Your task to perform on an android device: Open notification settings Image 0: 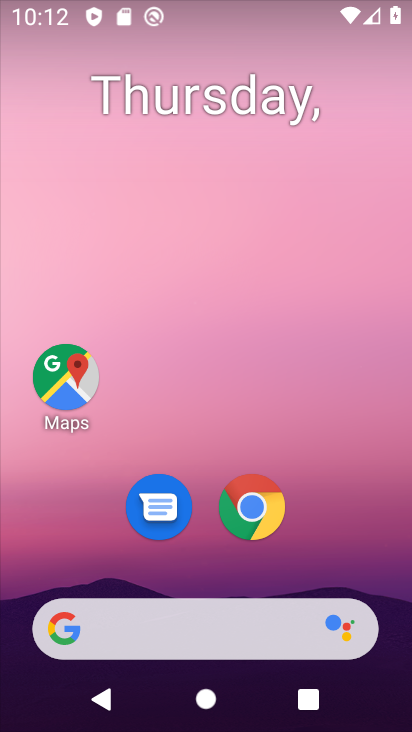
Step 0: drag from (353, 518) to (287, 31)
Your task to perform on an android device: Open notification settings Image 1: 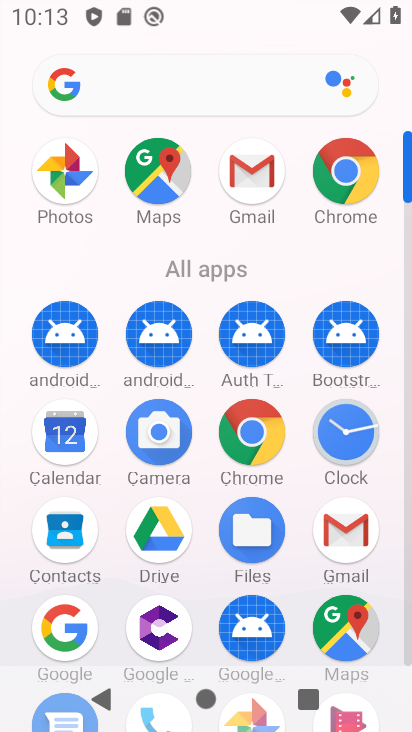
Step 1: drag from (5, 593) to (5, 284)
Your task to perform on an android device: Open notification settings Image 2: 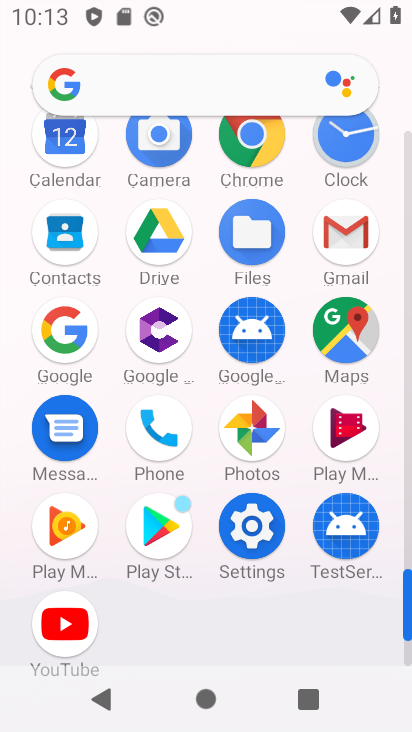
Step 2: click (254, 527)
Your task to perform on an android device: Open notification settings Image 3: 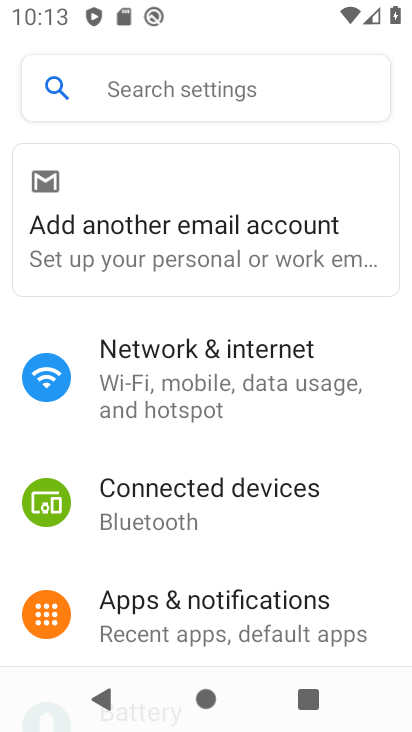
Step 3: click (190, 588)
Your task to perform on an android device: Open notification settings Image 4: 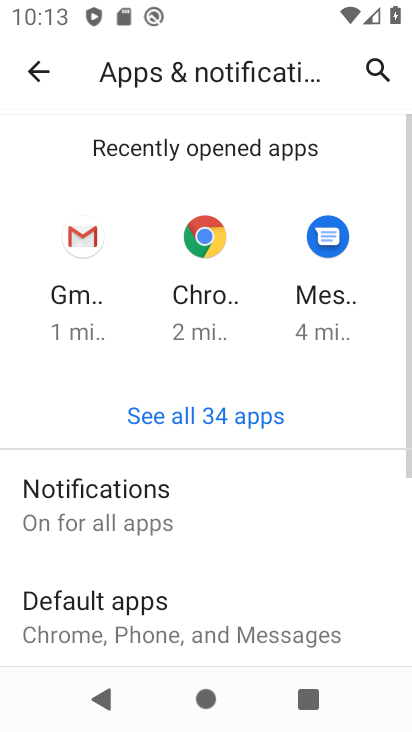
Step 4: click (185, 517)
Your task to perform on an android device: Open notification settings Image 5: 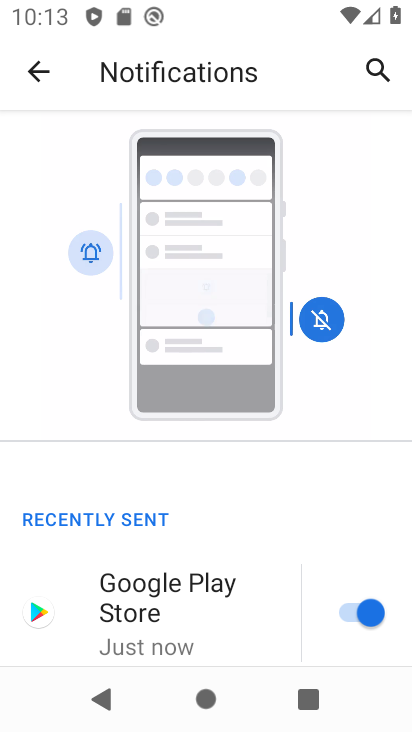
Step 5: drag from (207, 565) to (234, 162)
Your task to perform on an android device: Open notification settings Image 6: 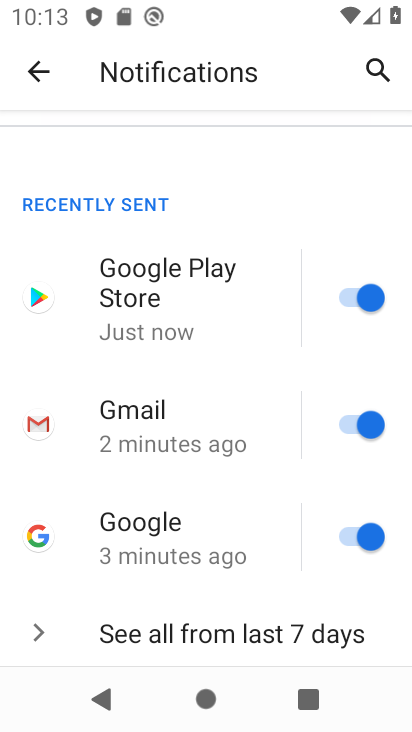
Step 6: drag from (194, 498) to (220, 155)
Your task to perform on an android device: Open notification settings Image 7: 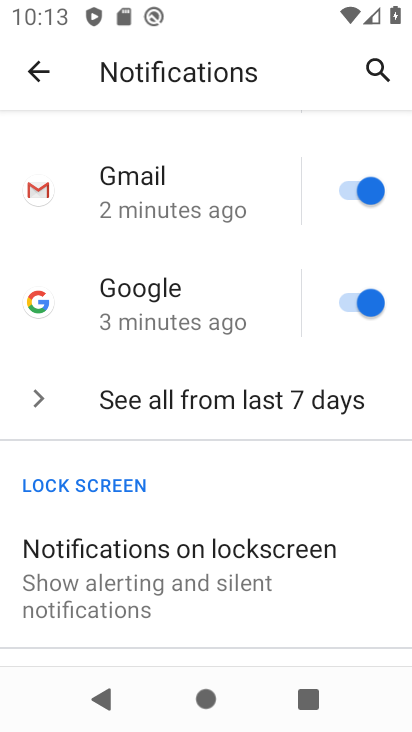
Step 7: drag from (112, 579) to (193, 136)
Your task to perform on an android device: Open notification settings Image 8: 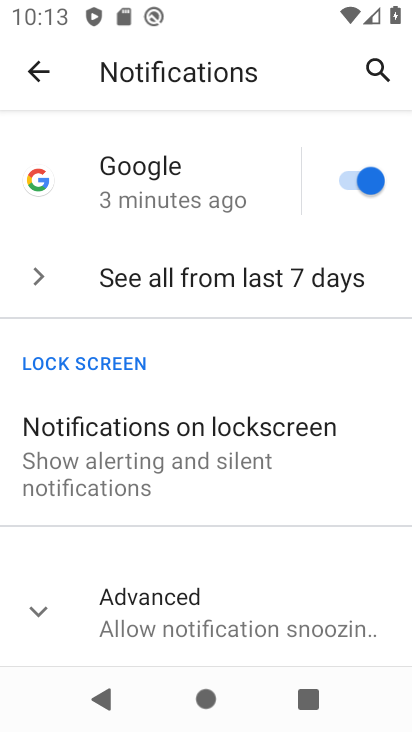
Step 8: click (17, 603)
Your task to perform on an android device: Open notification settings Image 9: 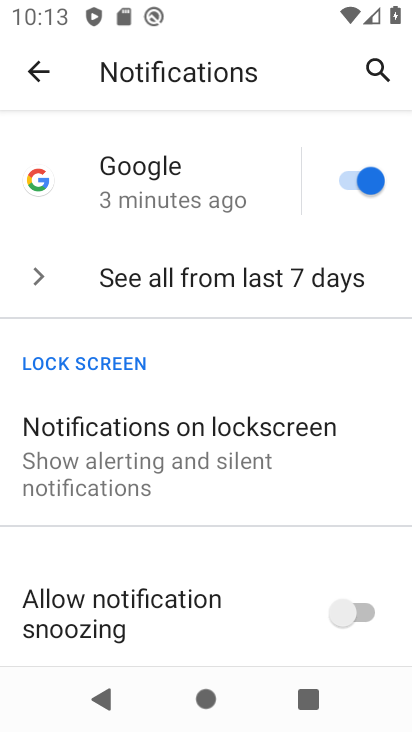
Step 9: task complete